Your task to perform on an android device: Open calendar and show me the second week of next month Image 0: 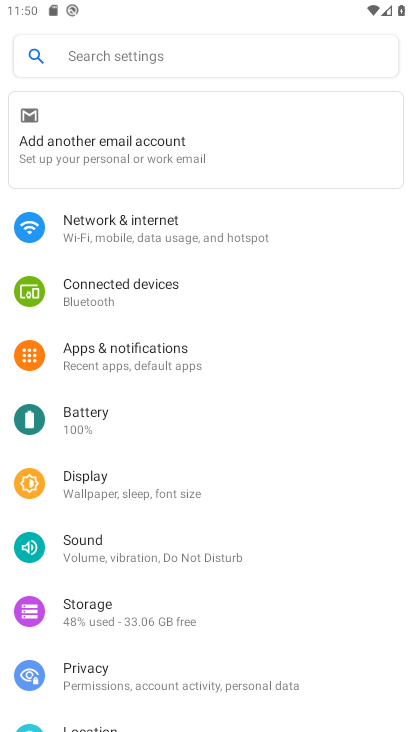
Step 0: press home button
Your task to perform on an android device: Open calendar and show me the second week of next month Image 1: 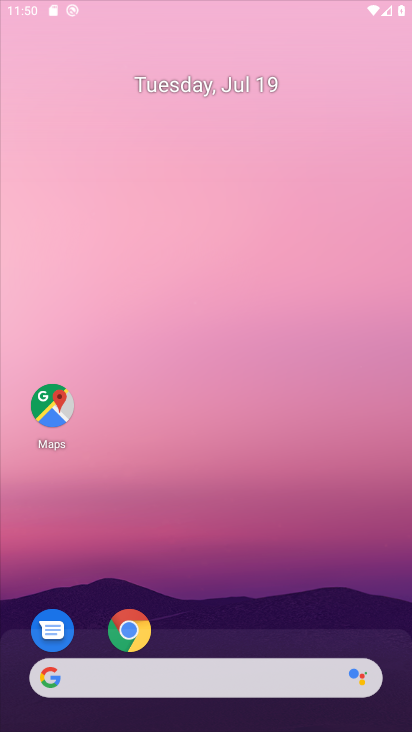
Step 1: click (252, 104)
Your task to perform on an android device: Open calendar and show me the second week of next month Image 2: 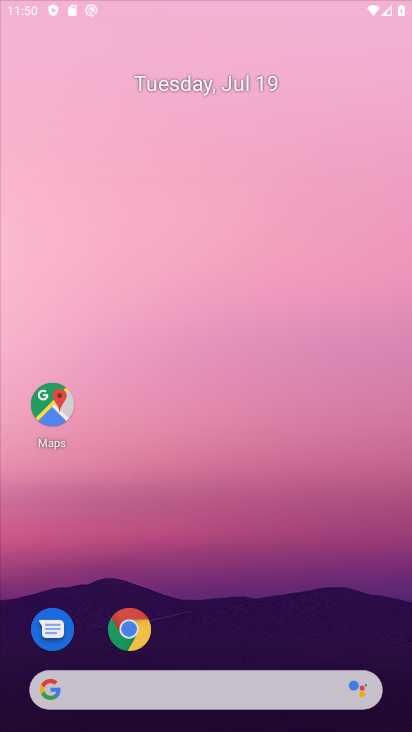
Step 2: drag from (126, 421) to (271, 75)
Your task to perform on an android device: Open calendar and show me the second week of next month Image 3: 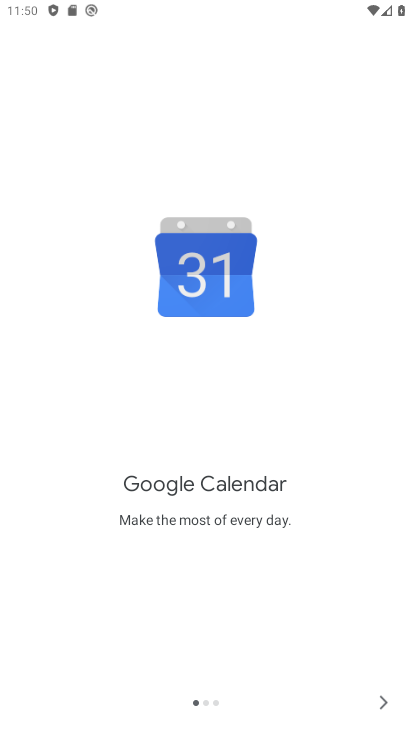
Step 3: click (381, 705)
Your task to perform on an android device: Open calendar and show me the second week of next month Image 4: 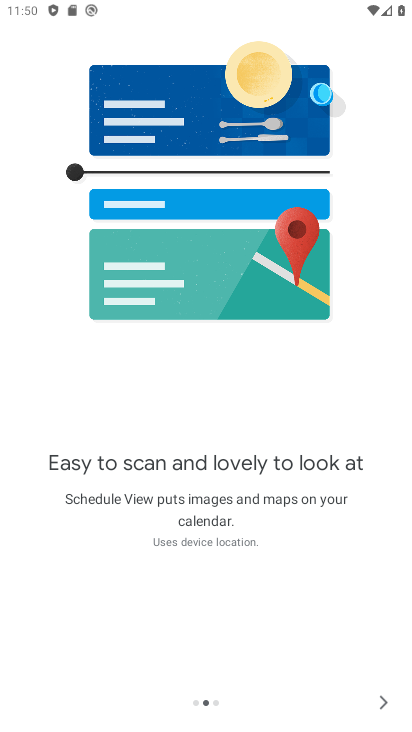
Step 4: click (382, 703)
Your task to perform on an android device: Open calendar and show me the second week of next month Image 5: 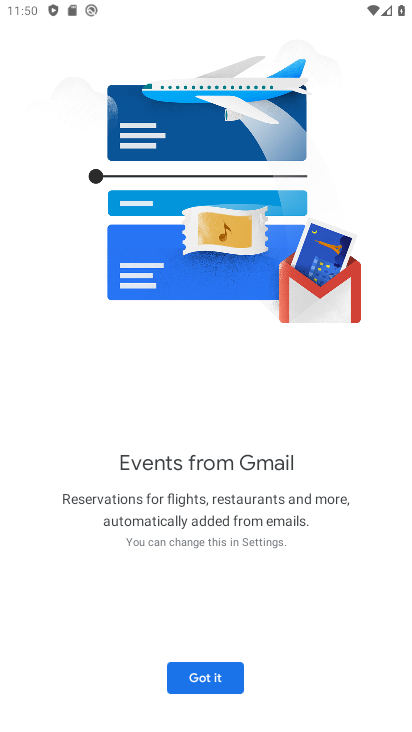
Step 5: click (188, 678)
Your task to perform on an android device: Open calendar and show me the second week of next month Image 6: 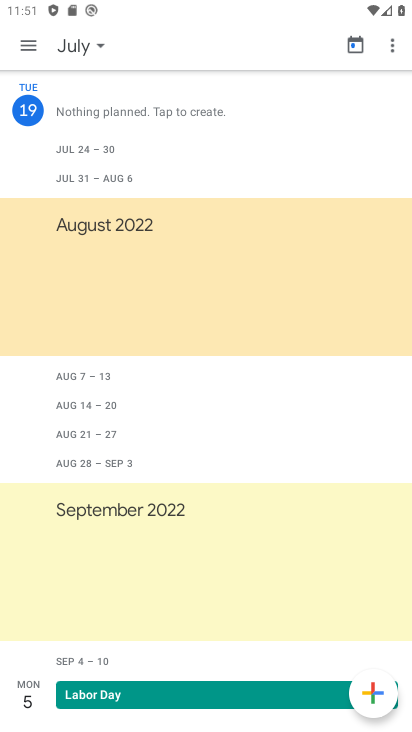
Step 6: click (71, 46)
Your task to perform on an android device: Open calendar and show me the second week of next month Image 7: 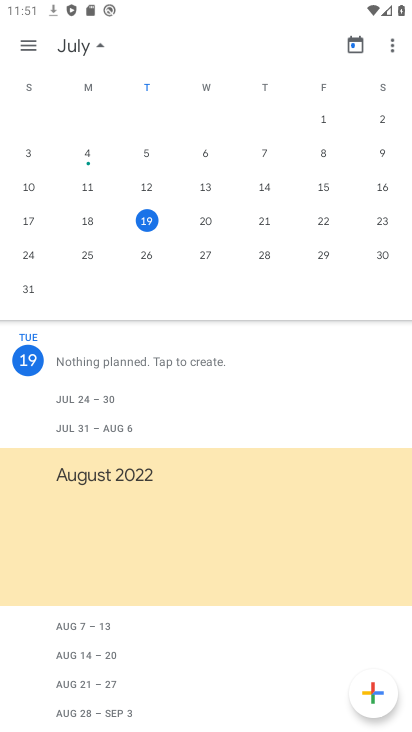
Step 7: click (199, 227)
Your task to perform on an android device: Open calendar and show me the second week of next month Image 8: 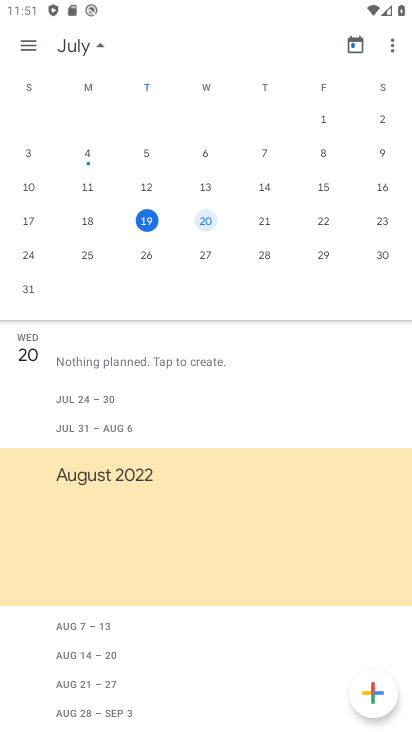
Step 8: task complete